Your task to perform on an android device: Check the news Image 0: 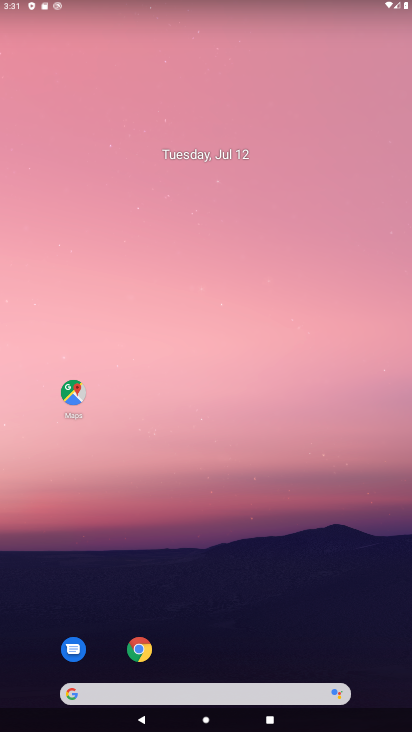
Step 0: drag from (226, 661) to (224, 623)
Your task to perform on an android device: Check the news Image 1: 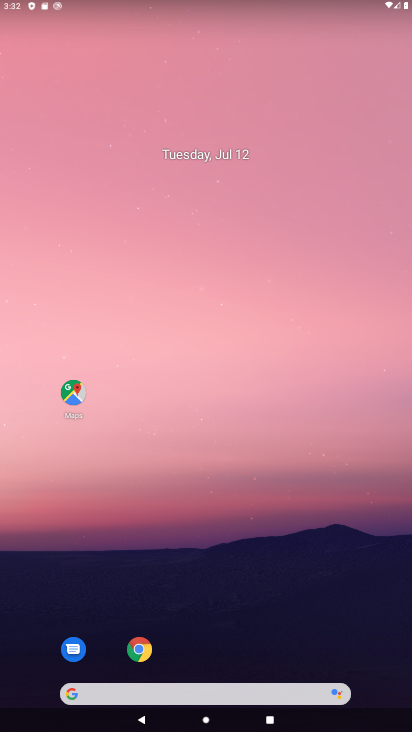
Step 1: task complete